Your task to perform on an android device: Open calendar and show me the second week of next month Image 0: 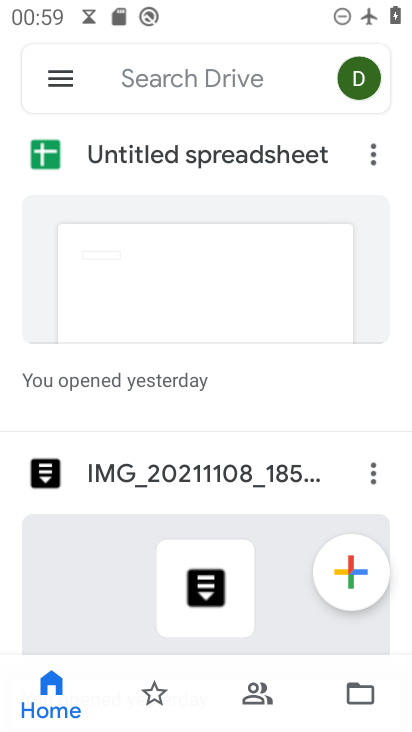
Step 0: press home button
Your task to perform on an android device: Open calendar and show me the second week of next month Image 1: 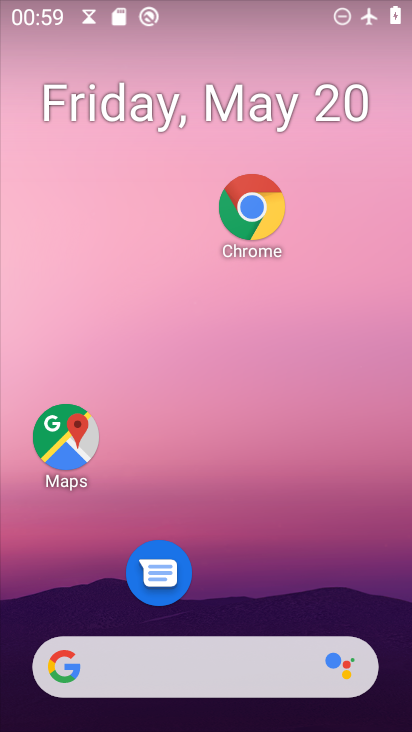
Step 1: drag from (288, 576) to (303, 40)
Your task to perform on an android device: Open calendar and show me the second week of next month Image 2: 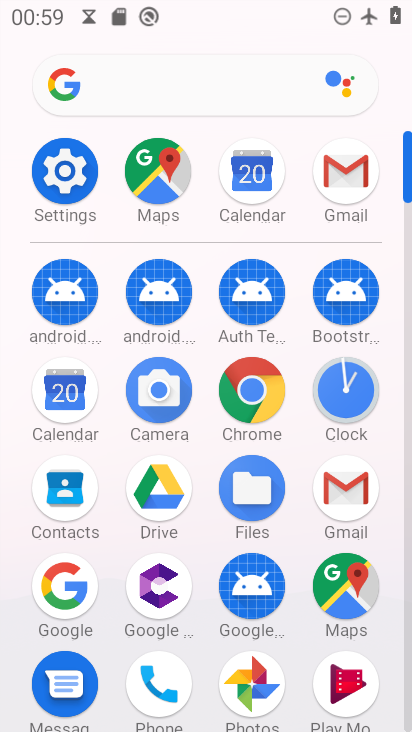
Step 2: click (253, 174)
Your task to perform on an android device: Open calendar and show me the second week of next month Image 3: 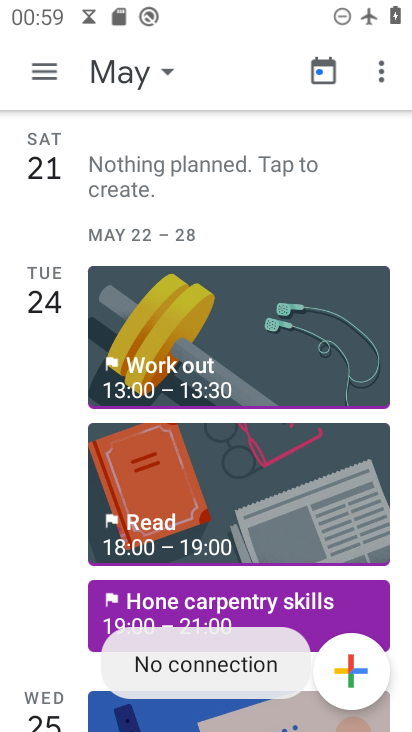
Step 3: click (138, 70)
Your task to perform on an android device: Open calendar and show me the second week of next month Image 4: 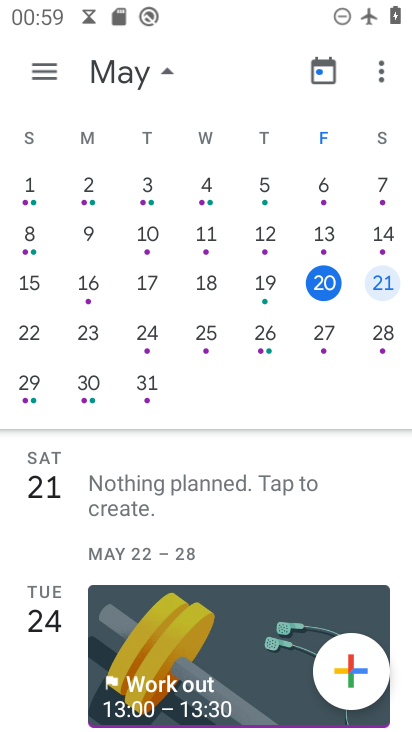
Step 4: drag from (378, 287) to (49, 237)
Your task to perform on an android device: Open calendar and show me the second week of next month Image 5: 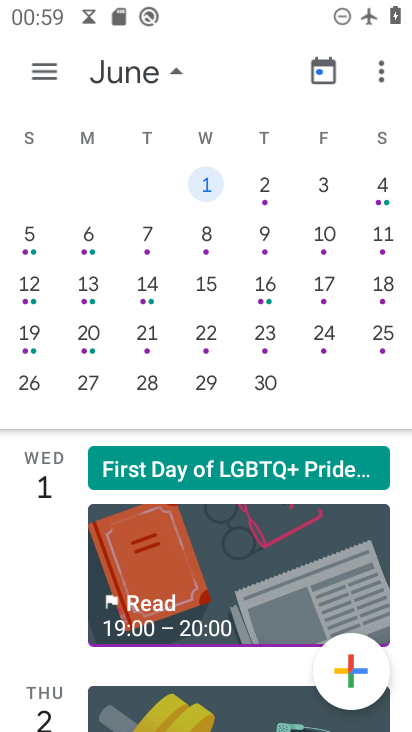
Step 5: click (44, 243)
Your task to perform on an android device: Open calendar and show me the second week of next month Image 6: 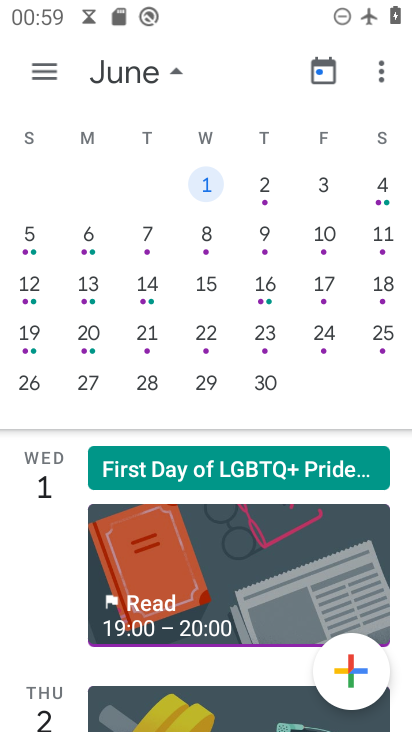
Step 6: click (34, 251)
Your task to perform on an android device: Open calendar and show me the second week of next month Image 7: 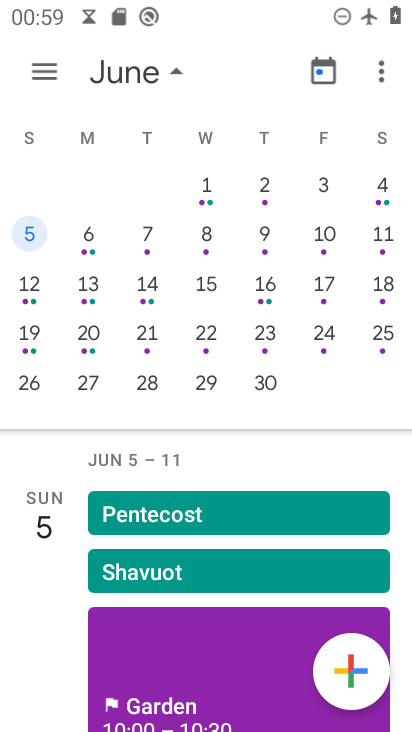
Step 7: task complete